Your task to perform on an android device: open chrome privacy settings Image 0: 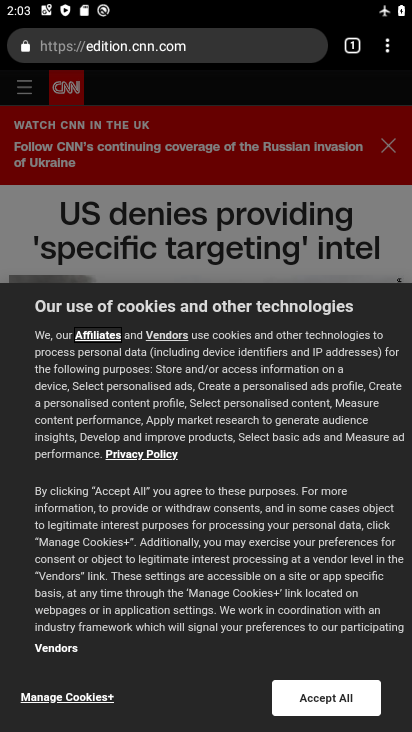
Step 0: click (135, 629)
Your task to perform on an android device: open chrome privacy settings Image 1: 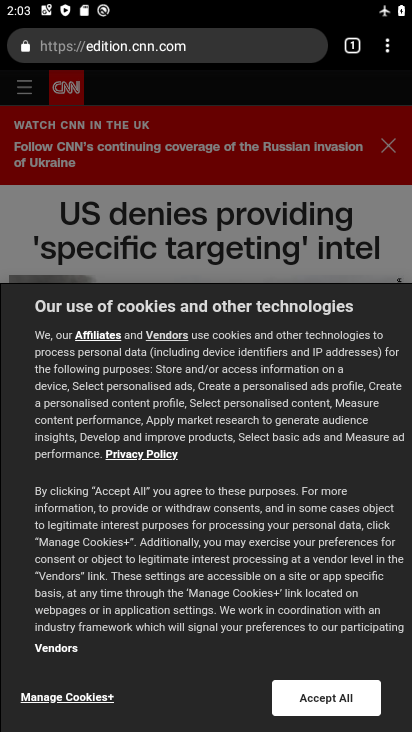
Step 1: drag from (388, 57) to (249, 510)
Your task to perform on an android device: open chrome privacy settings Image 2: 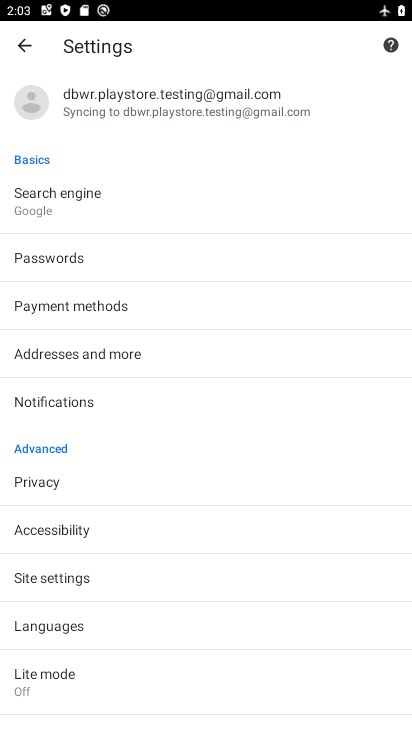
Step 2: click (121, 486)
Your task to perform on an android device: open chrome privacy settings Image 3: 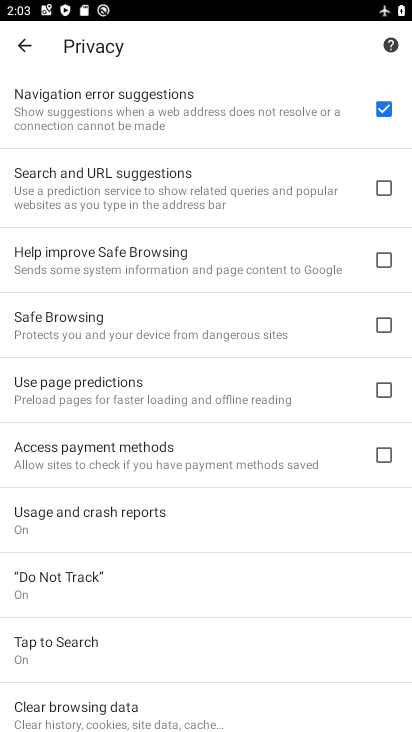
Step 3: task complete